Your task to perform on an android device: change the clock display to digital Image 0: 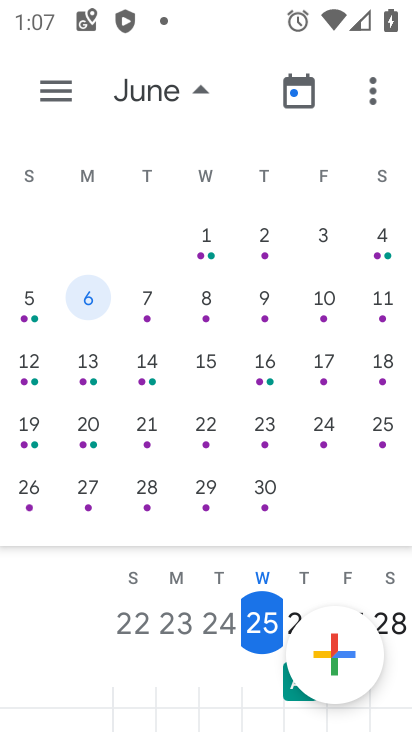
Step 0: press home button
Your task to perform on an android device: change the clock display to digital Image 1: 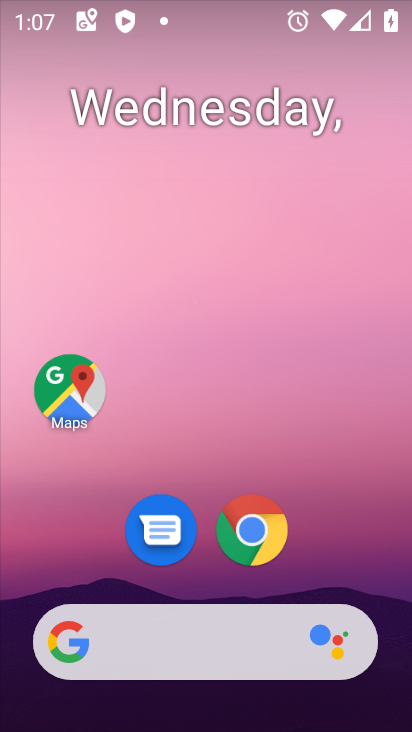
Step 1: drag from (197, 585) to (253, 145)
Your task to perform on an android device: change the clock display to digital Image 2: 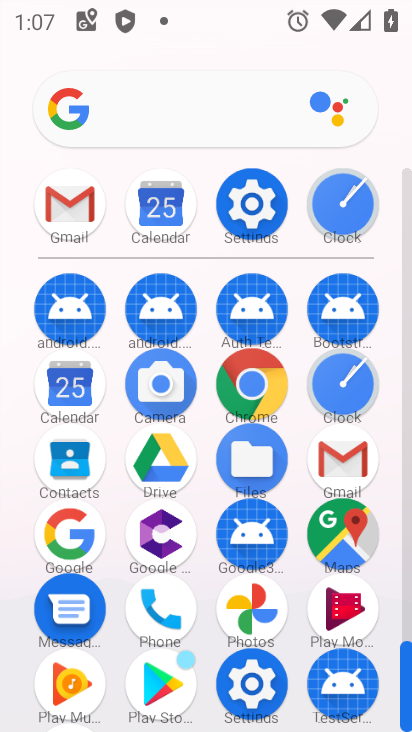
Step 2: click (347, 383)
Your task to perform on an android device: change the clock display to digital Image 3: 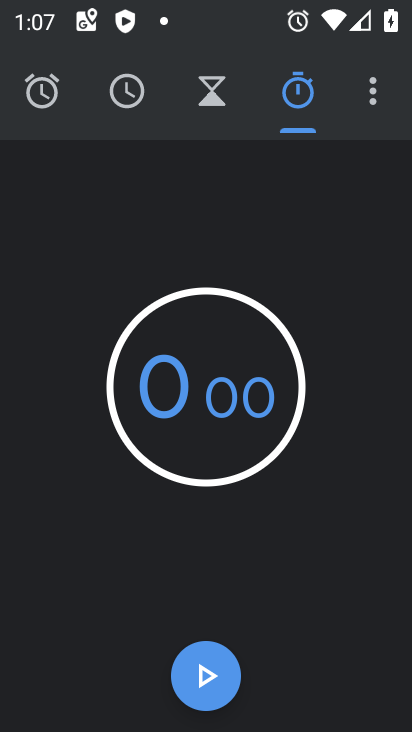
Step 3: click (371, 94)
Your task to perform on an android device: change the clock display to digital Image 4: 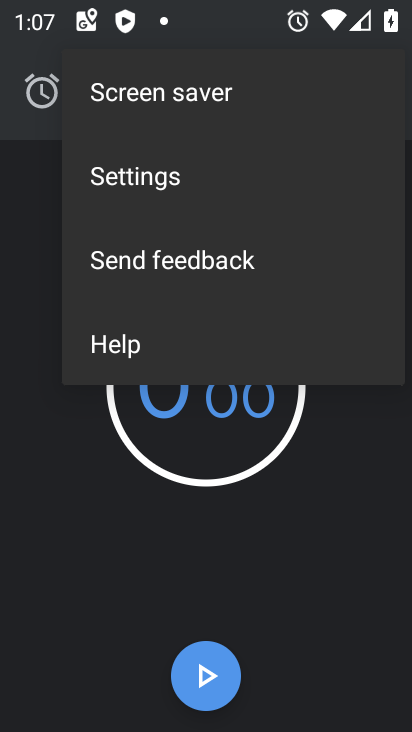
Step 4: click (180, 175)
Your task to perform on an android device: change the clock display to digital Image 5: 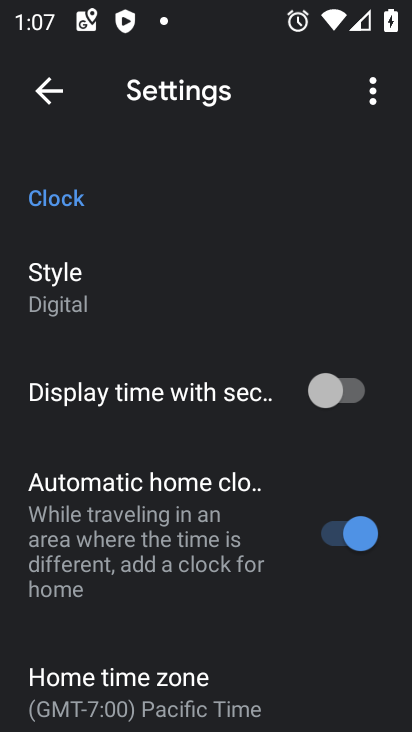
Step 5: click (36, 288)
Your task to perform on an android device: change the clock display to digital Image 6: 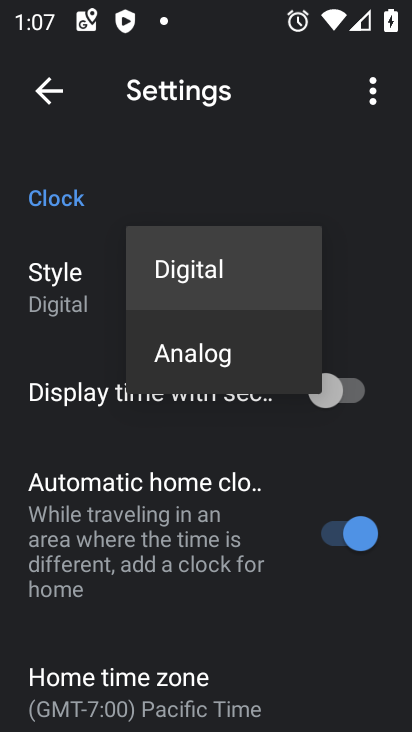
Step 6: task complete